Your task to perform on an android device: turn off location Image 0: 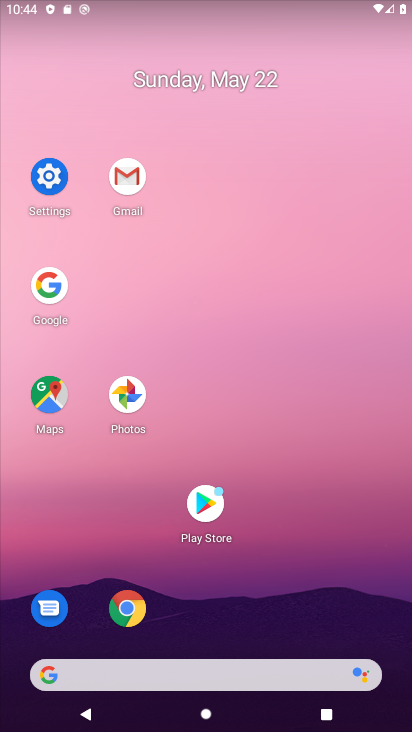
Step 0: click (53, 187)
Your task to perform on an android device: turn off location Image 1: 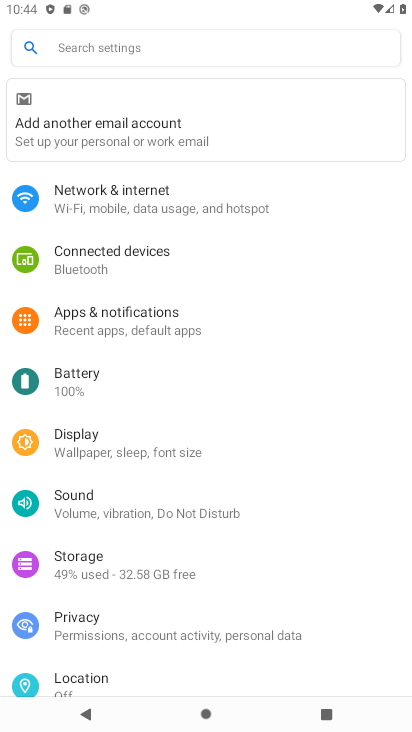
Step 1: click (159, 677)
Your task to perform on an android device: turn off location Image 2: 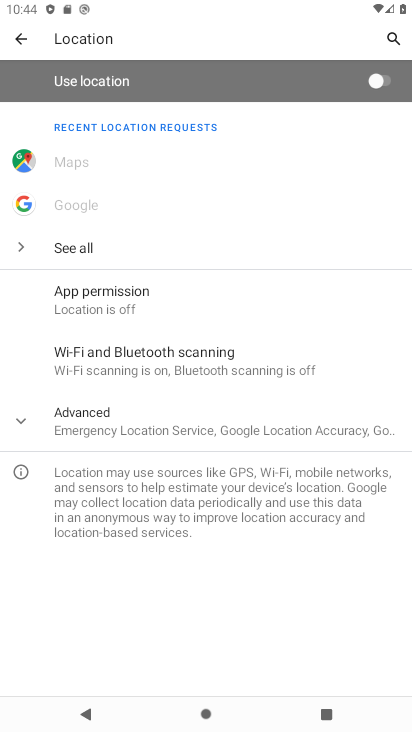
Step 2: task complete